Your task to perform on an android device: What is the recent news? Image 0: 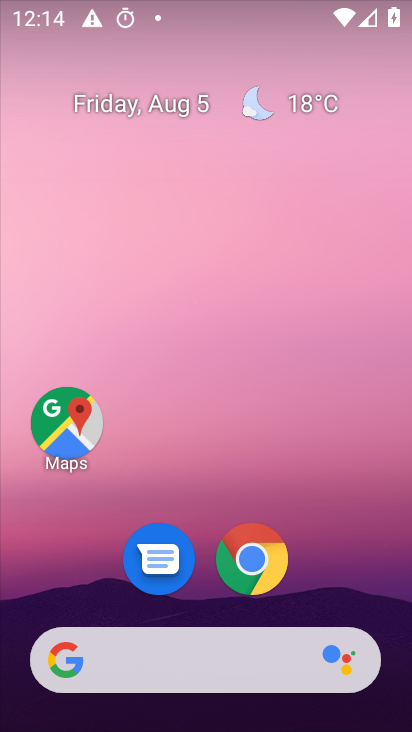
Step 0: click (168, 663)
Your task to perform on an android device: What is the recent news? Image 1: 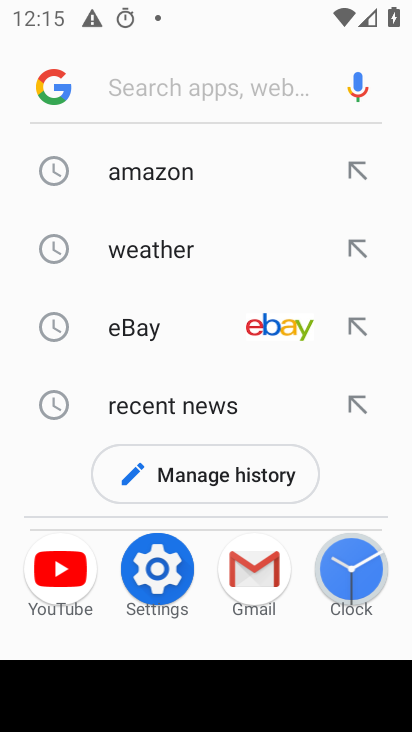
Step 1: type "What is the recent news?"
Your task to perform on an android device: What is the recent news? Image 2: 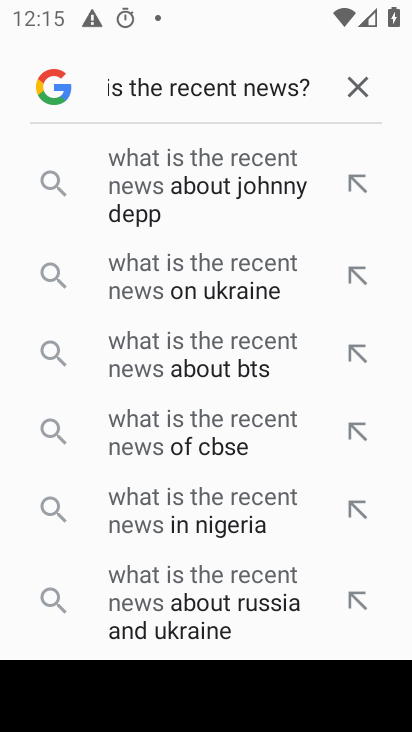
Step 2: type ""
Your task to perform on an android device: What is the recent news? Image 3: 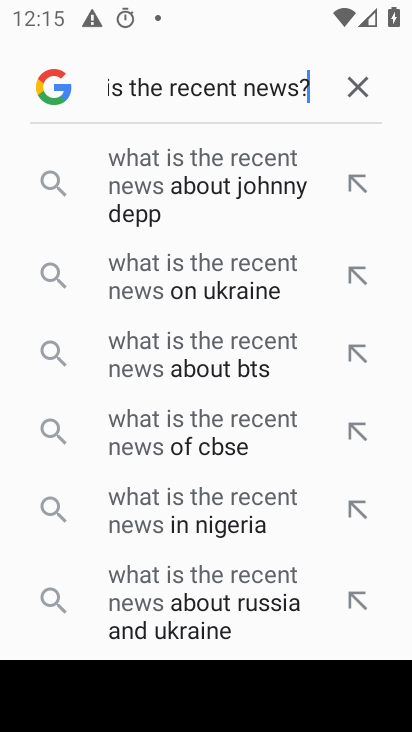
Step 3: type ""
Your task to perform on an android device: What is the recent news? Image 4: 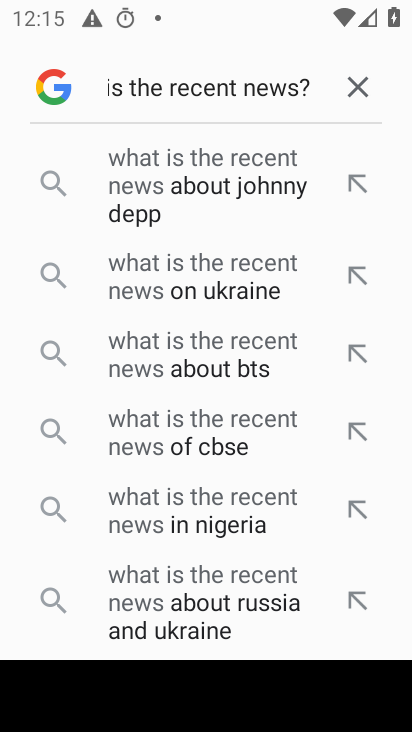
Step 4: task complete